Your task to perform on an android device: check battery use Image 0: 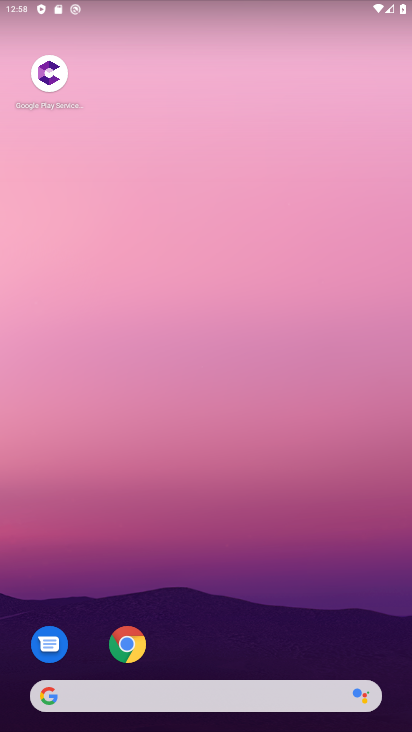
Step 0: drag from (233, 683) to (141, 39)
Your task to perform on an android device: check battery use Image 1: 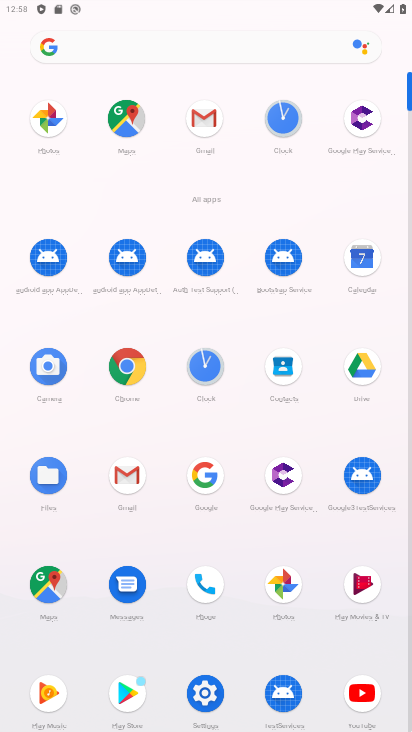
Step 1: click (210, 686)
Your task to perform on an android device: check battery use Image 2: 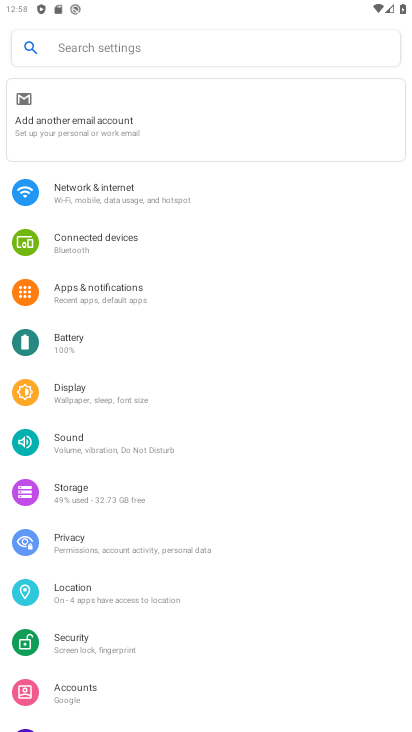
Step 2: click (122, 336)
Your task to perform on an android device: check battery use Image 3: 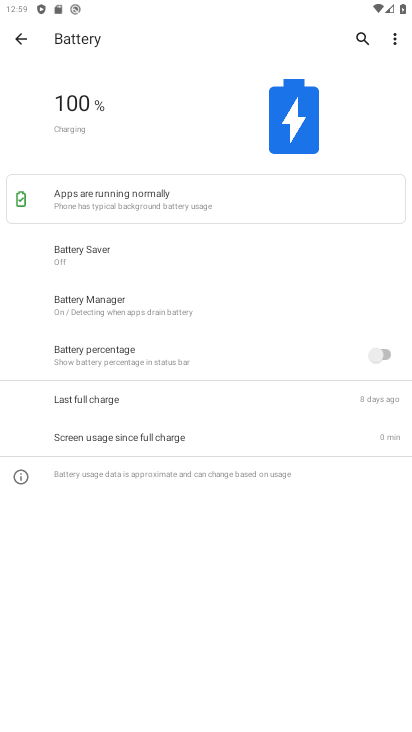
Step 3: click (389, 35)
Your task to perform on an android device: check battery use Image 4: 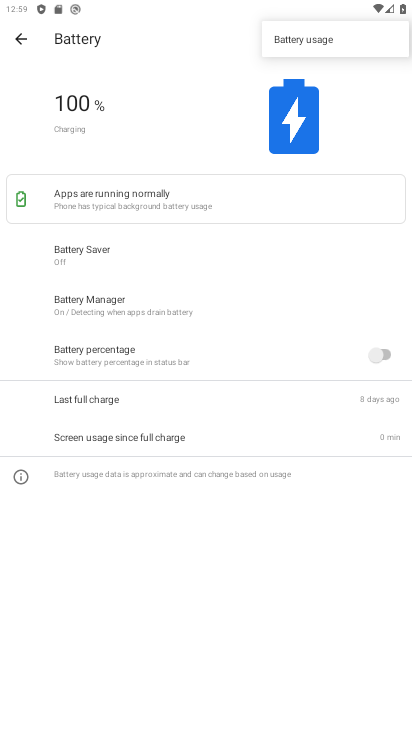
Step 4: click (330, 48)
Your task to perform on an android device: check battery use Image 5: 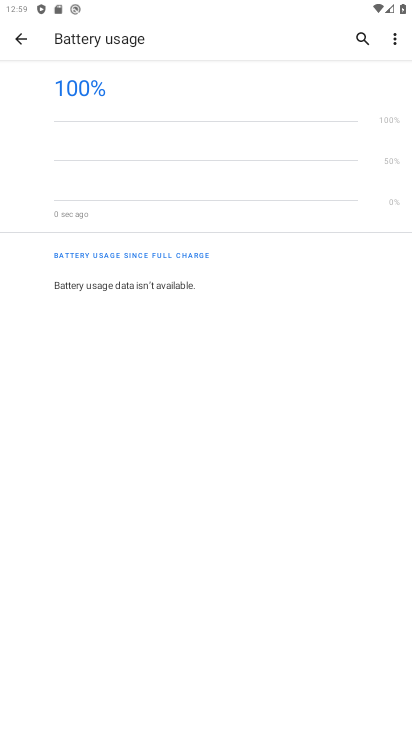
Step 5: task complete